Your task to perform on an android device: open app "DoorDash - Dasher" (install if not already installed) Image 0: 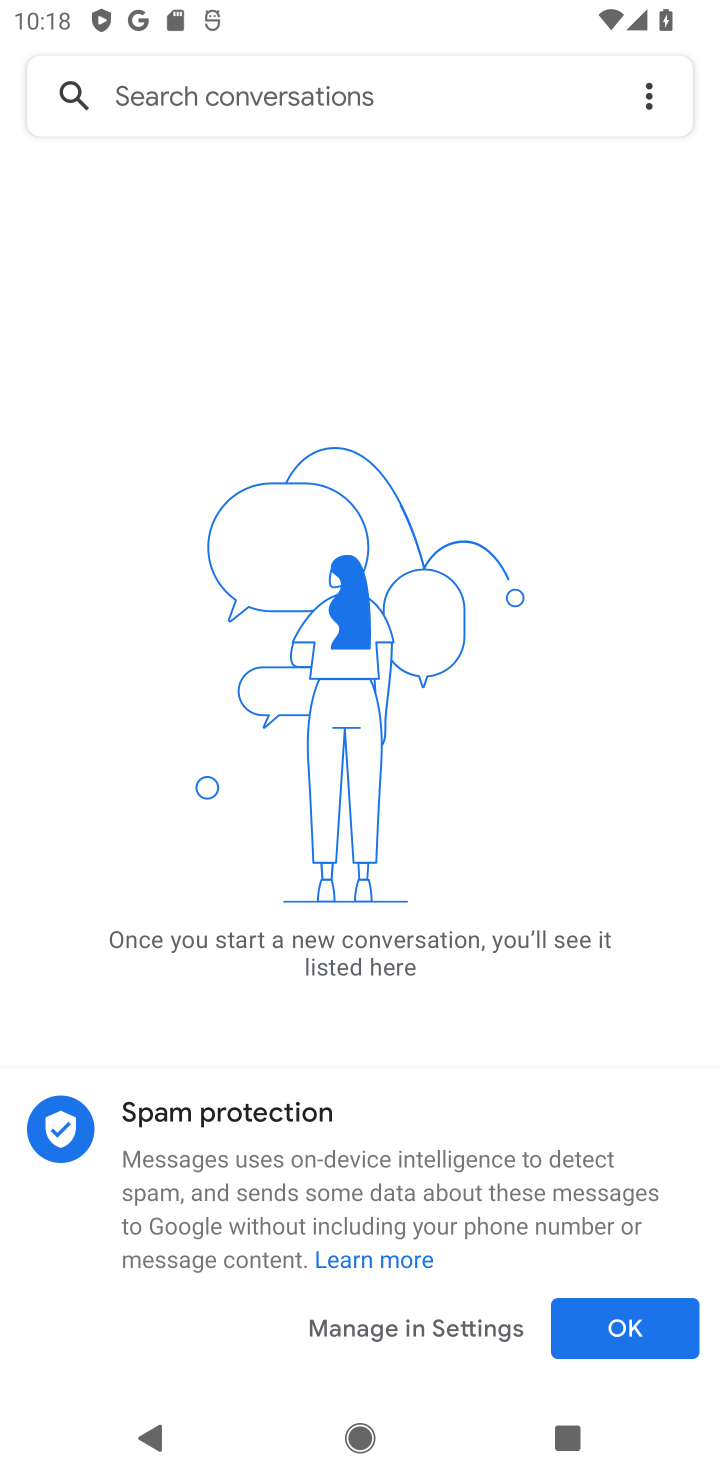
Step 0: press back button
Your task to perform on an android device: open app "DoorDash - Dasher" (install if not already installed) Image 1: 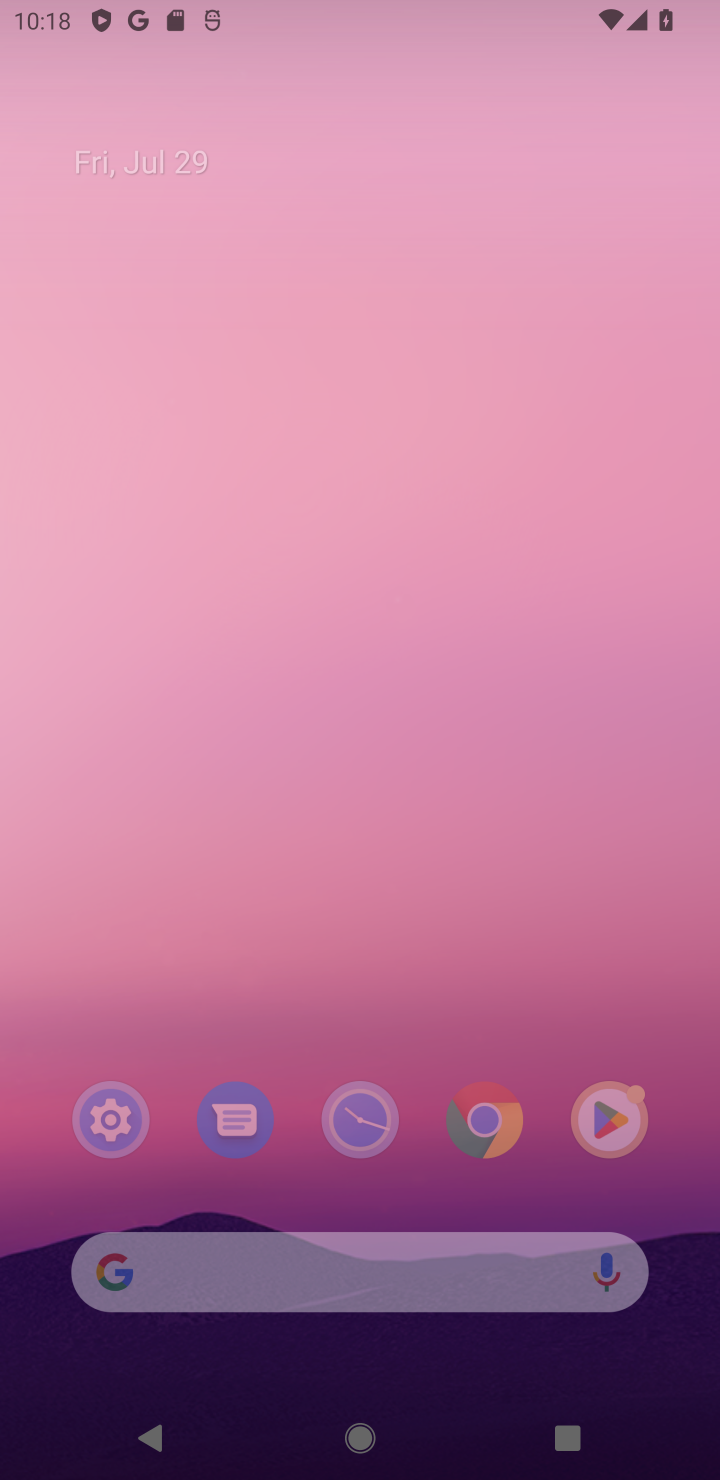
Step 1: press back button
Your task to perform on an android device: open app "DoorDash - Dasher" (install if not already installed) Image 2: 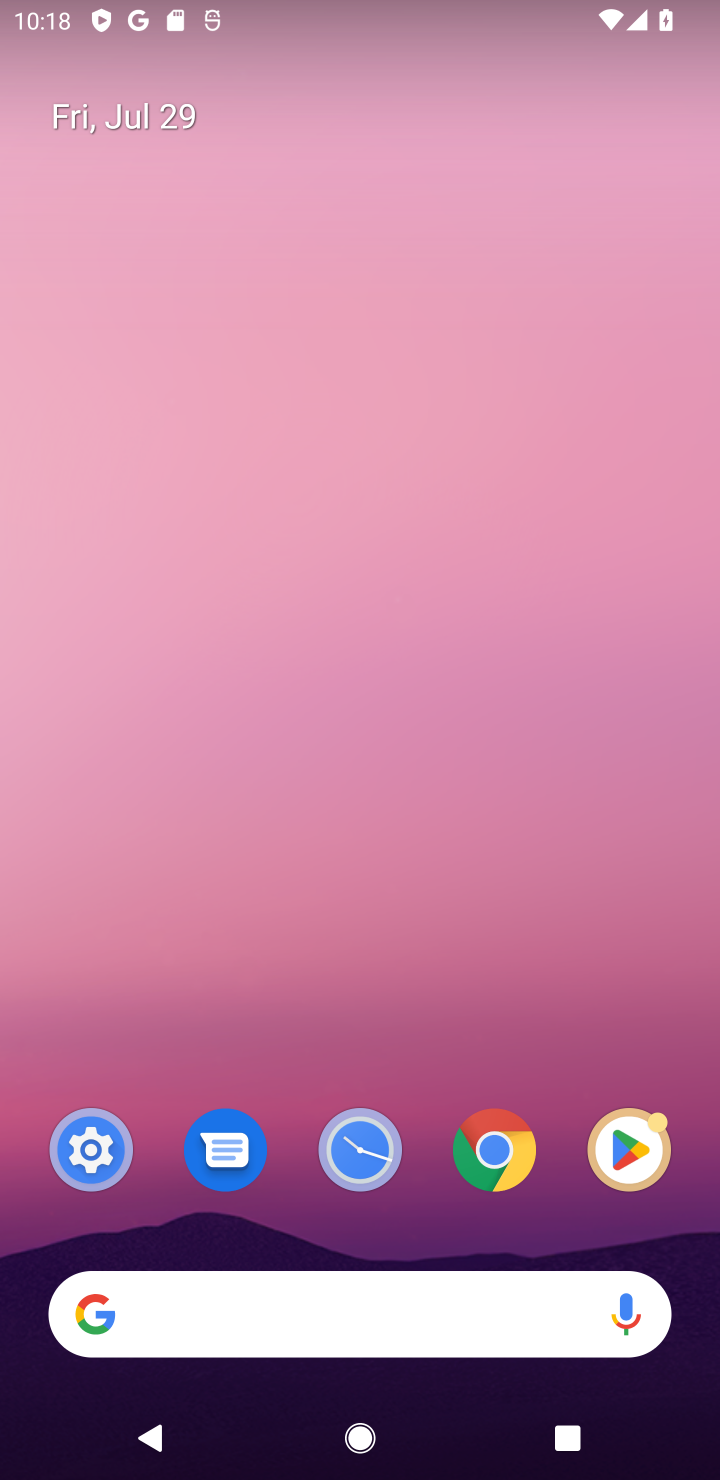
Step 2: click (627, 1153)
Your task to perform on an android device: open app "DoorDash - Dasher" (install if not already installed) Image 3: 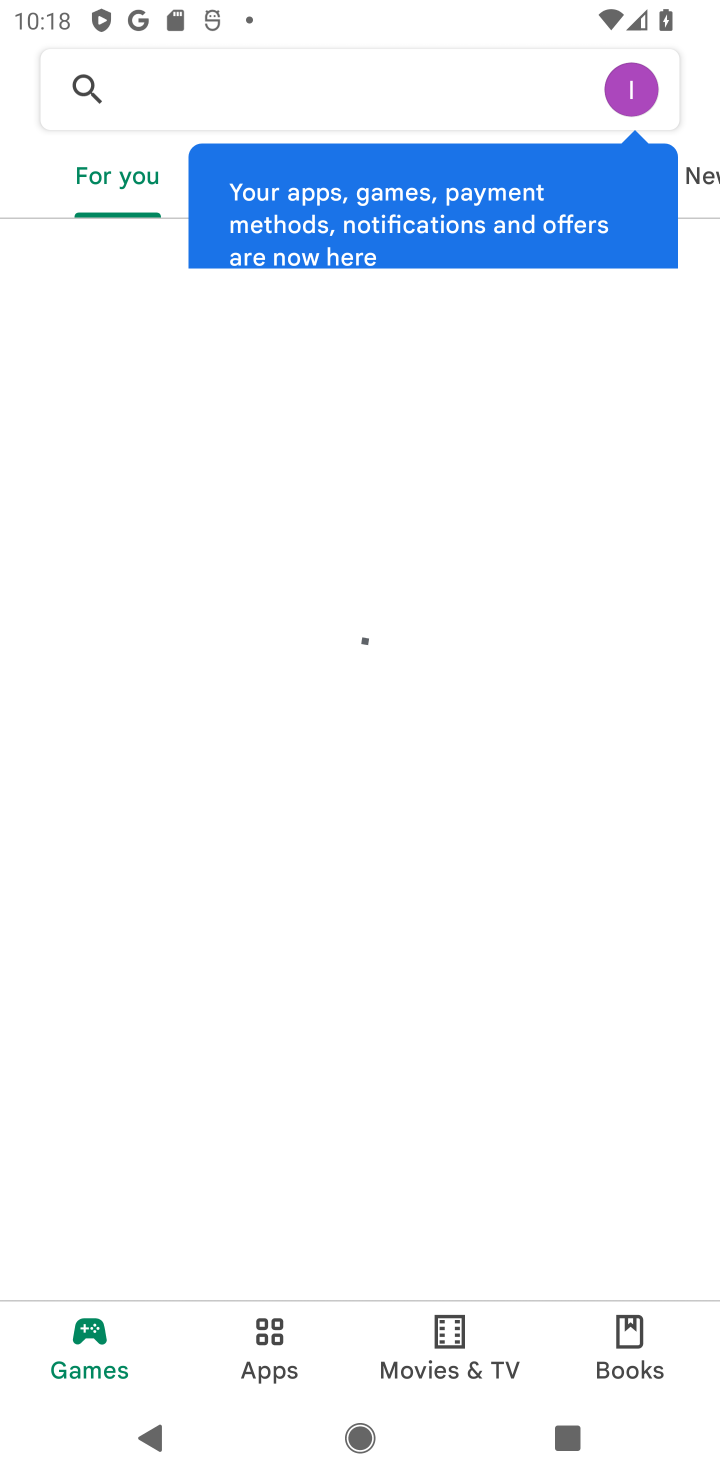
Step 3: click (368, 95)
Your task to perform on an android device: open app "DoorDash - Dasher" (install if not already installed) Image 4: 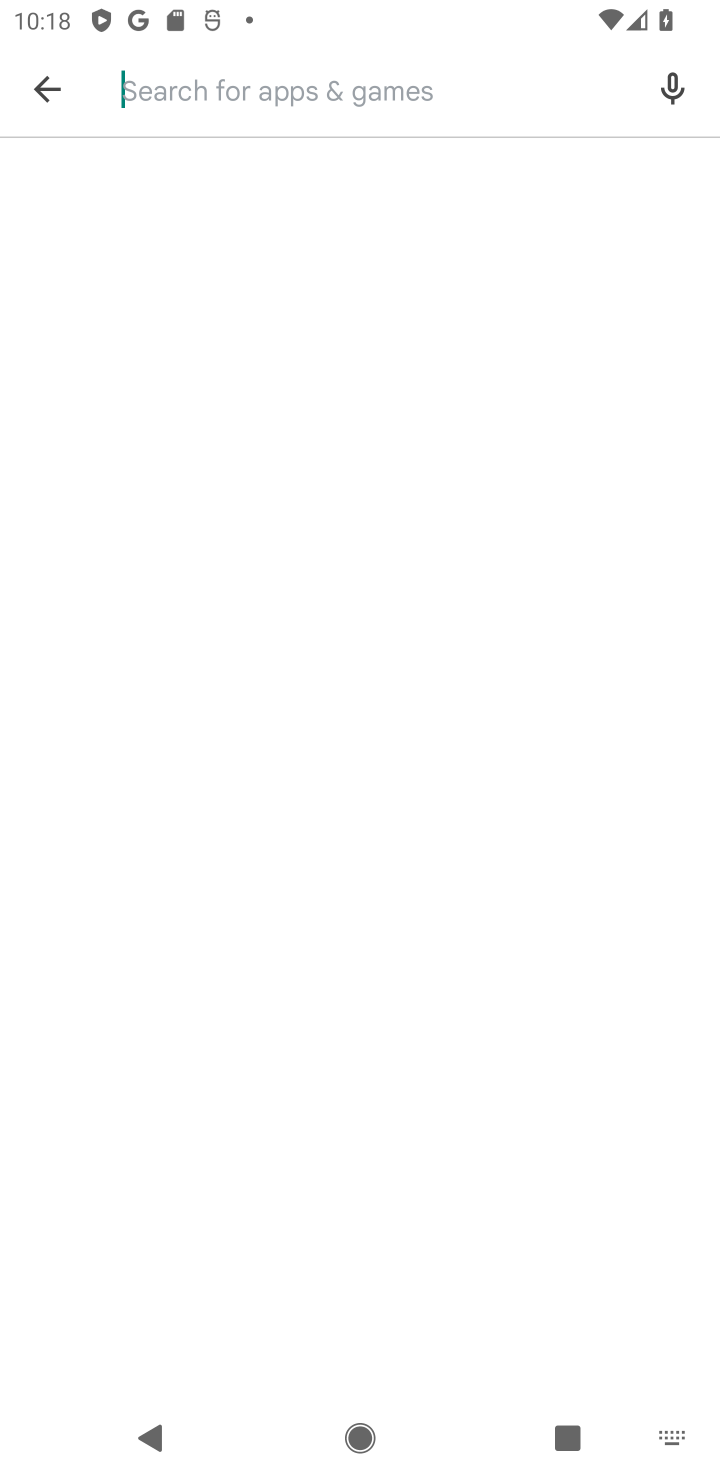
Step 4: click (258, 71)
Your task to perform on an android device: open app "DoorDash - Dasher" (install if not already installed) Image 5: 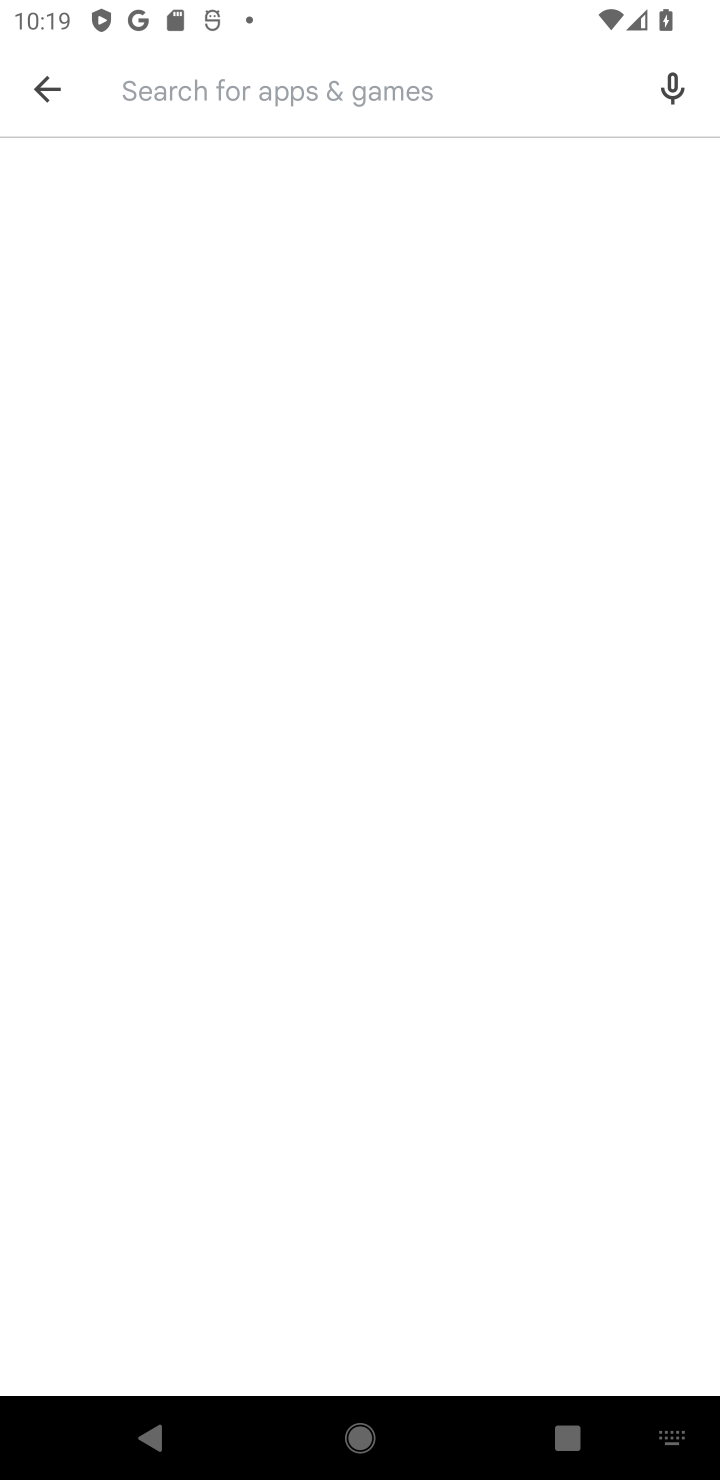
Step 5: type "doordash"
Your task to perform on an android device: open app "DoorDash - Dasher" (install if not already installed) Image 6: 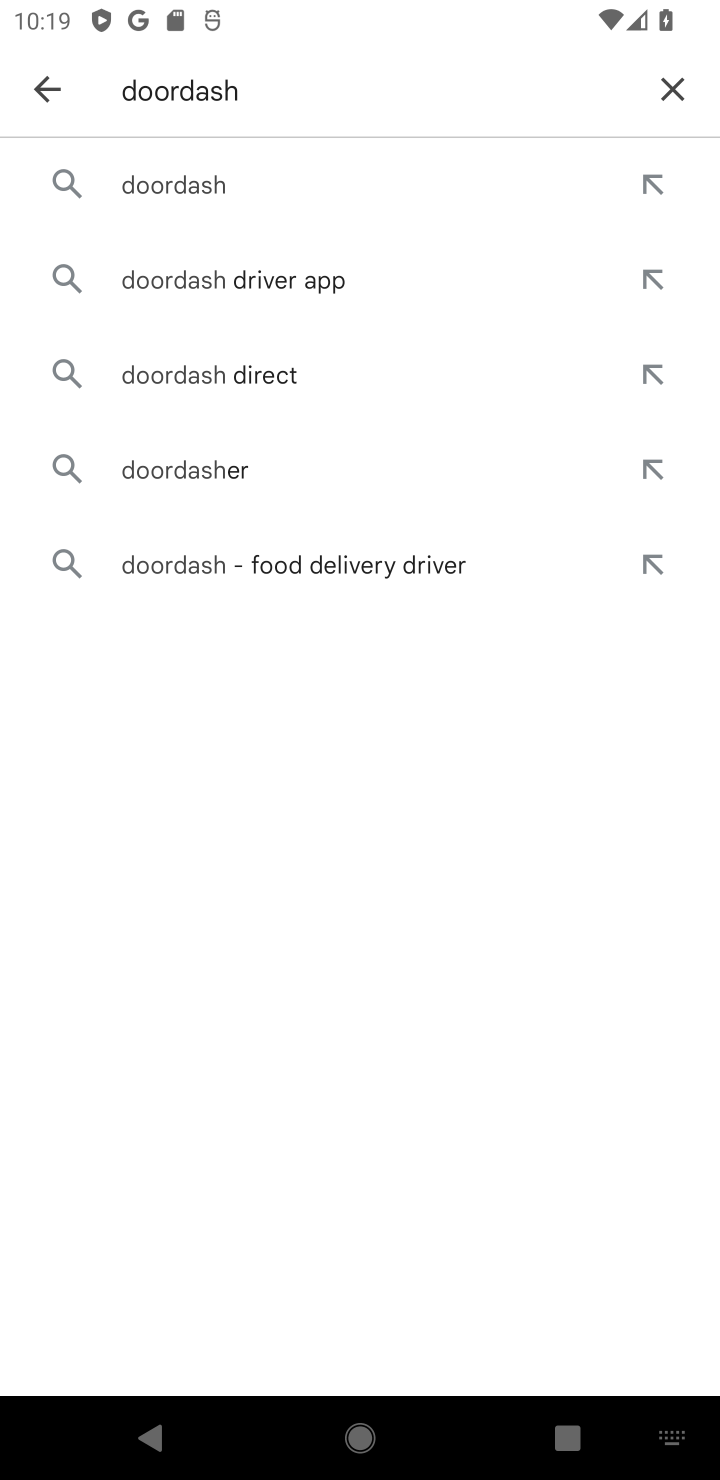
Step 6: click (182, 184)
Your task to perform on an android device: open app "DoorDash - Dasher" (install if not already installed) Image 7: 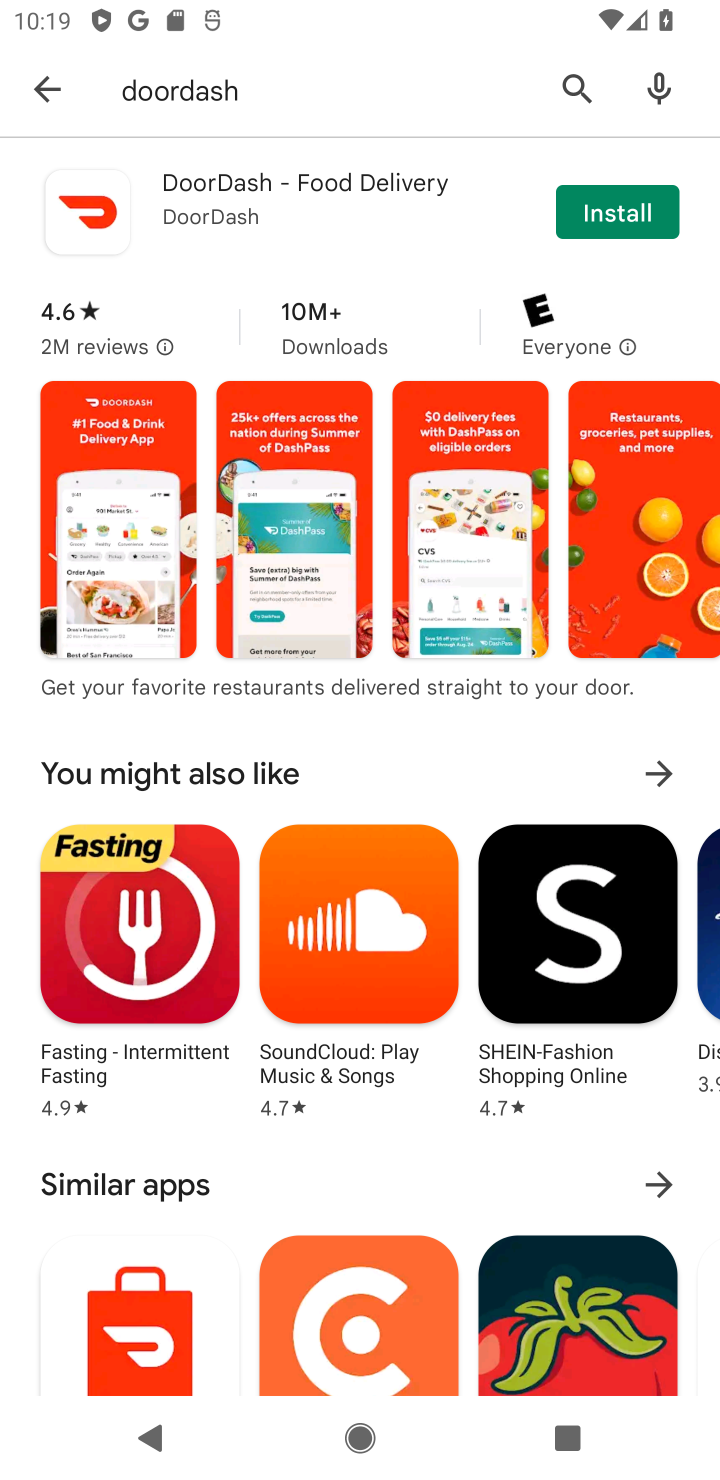
Step 7: drag from (252, 1258) to (435, 723)
Your task to perform on an android device: open app "DoorDash - Dasher" (install if not already installed) Image 8: 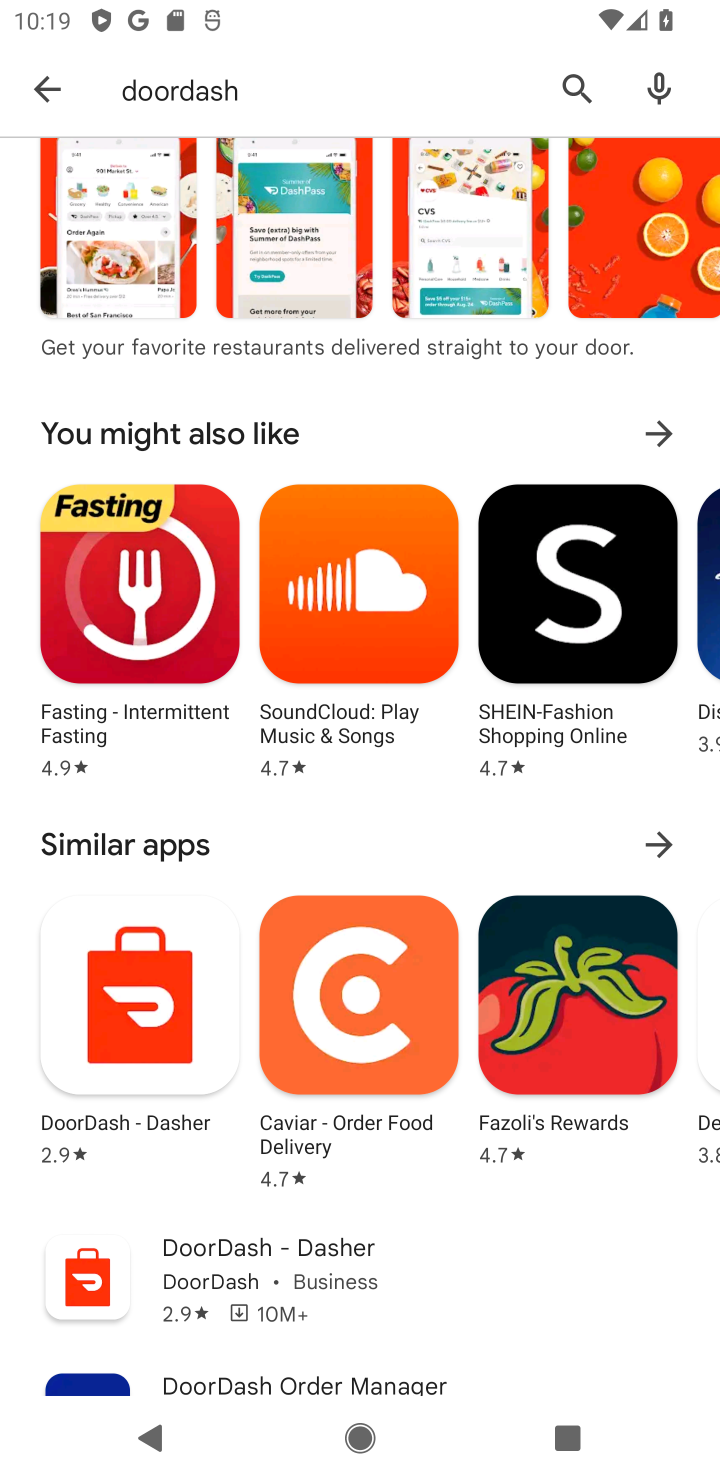
Step 8: click (135, 995)
Your task to perform on an android device: open app "DoorDash - Dasher" (install if not already installed) Image 9: 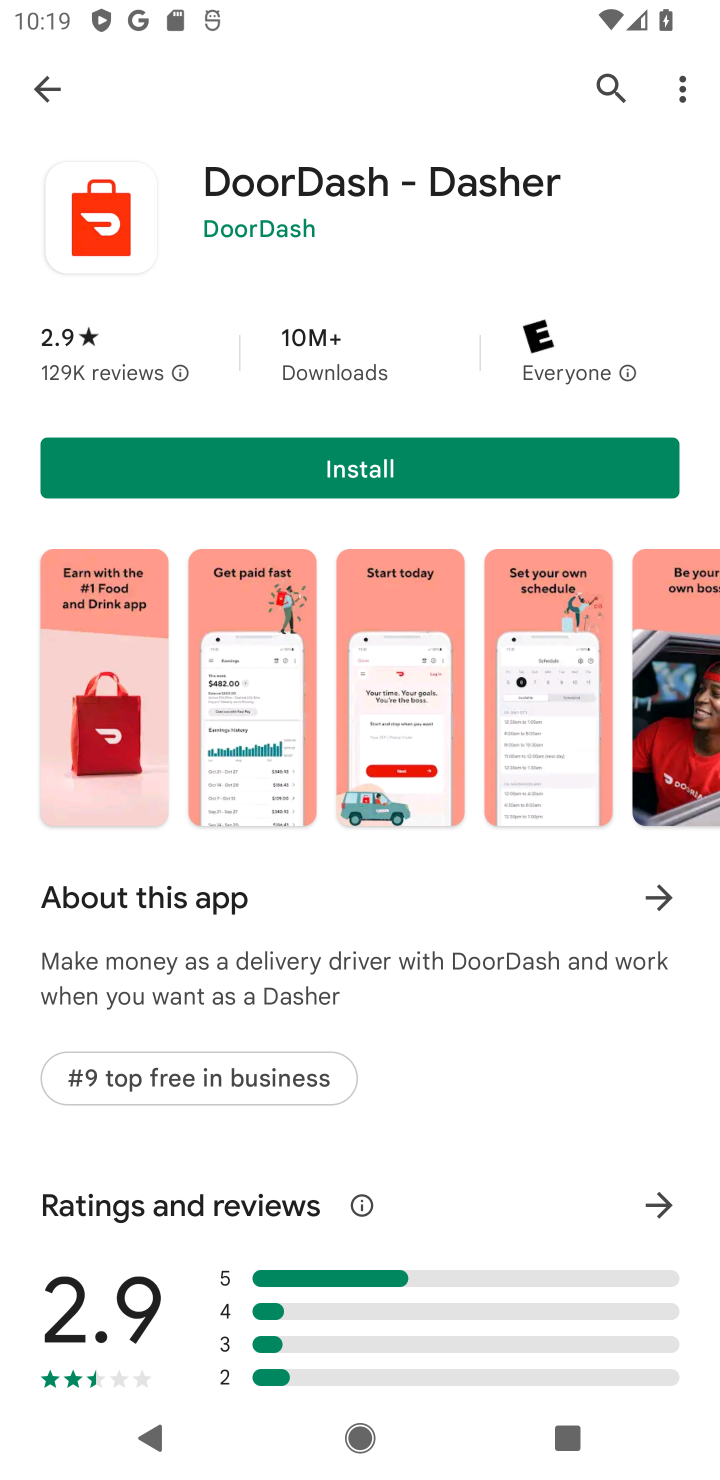
Step 9: click (413, 485)
Your task to perform on an android device: open app "DoorDash - Dasher" (install if not already installed) Image 10: 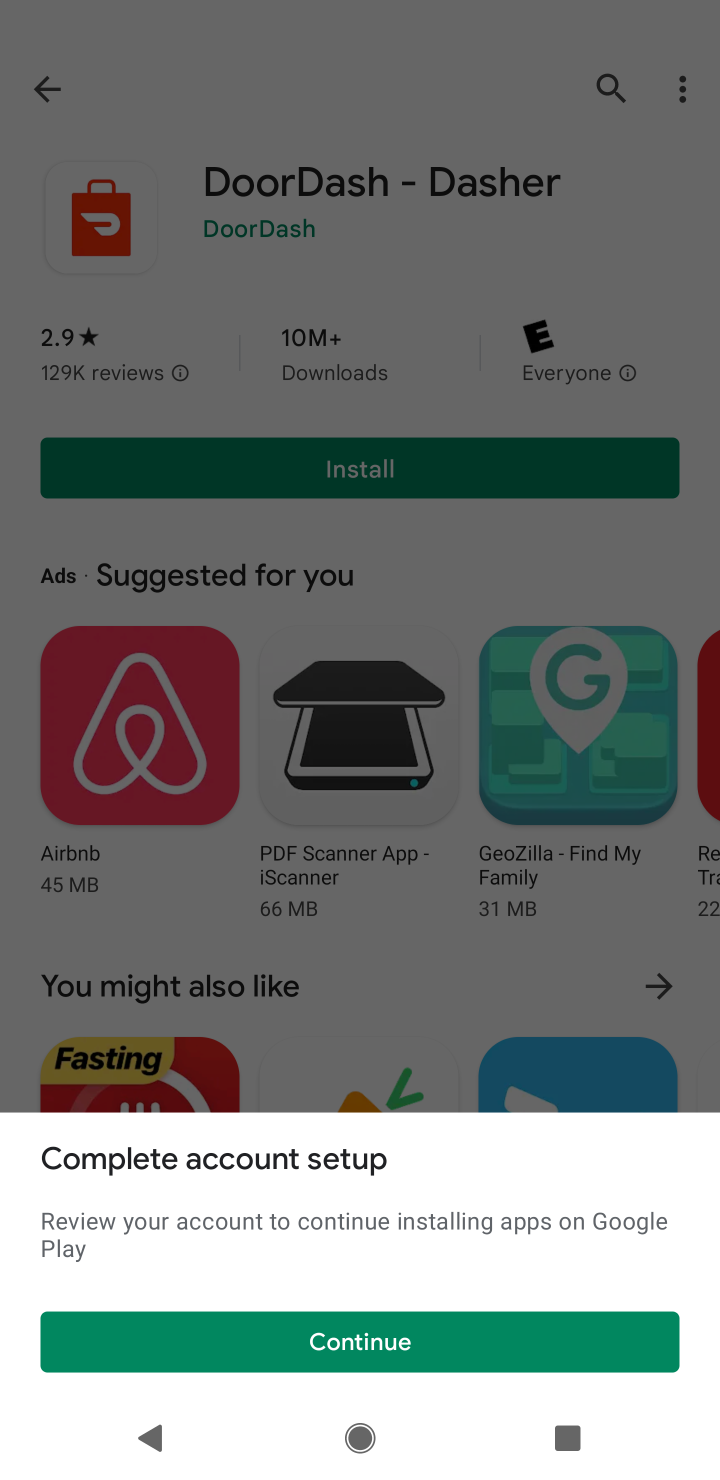
Step 10: click (332, 1341)
Your task to perform on an android device: open app "DoorDash - Dasher" (install if not already installed) Image 11: 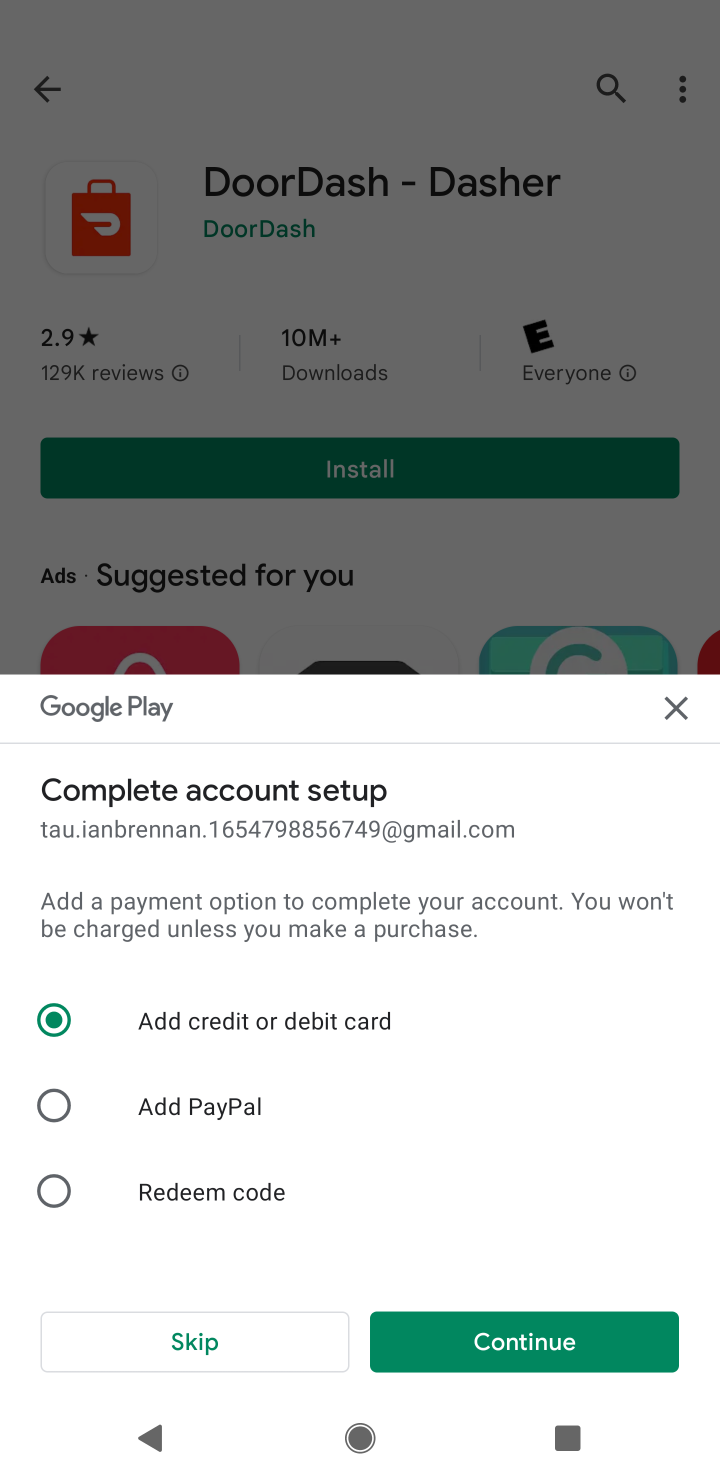
Step 11: click (194, 1341)
Your task to perform on an android device: open app "DoorDash - Dasher" (install if not already installed) Image 12: 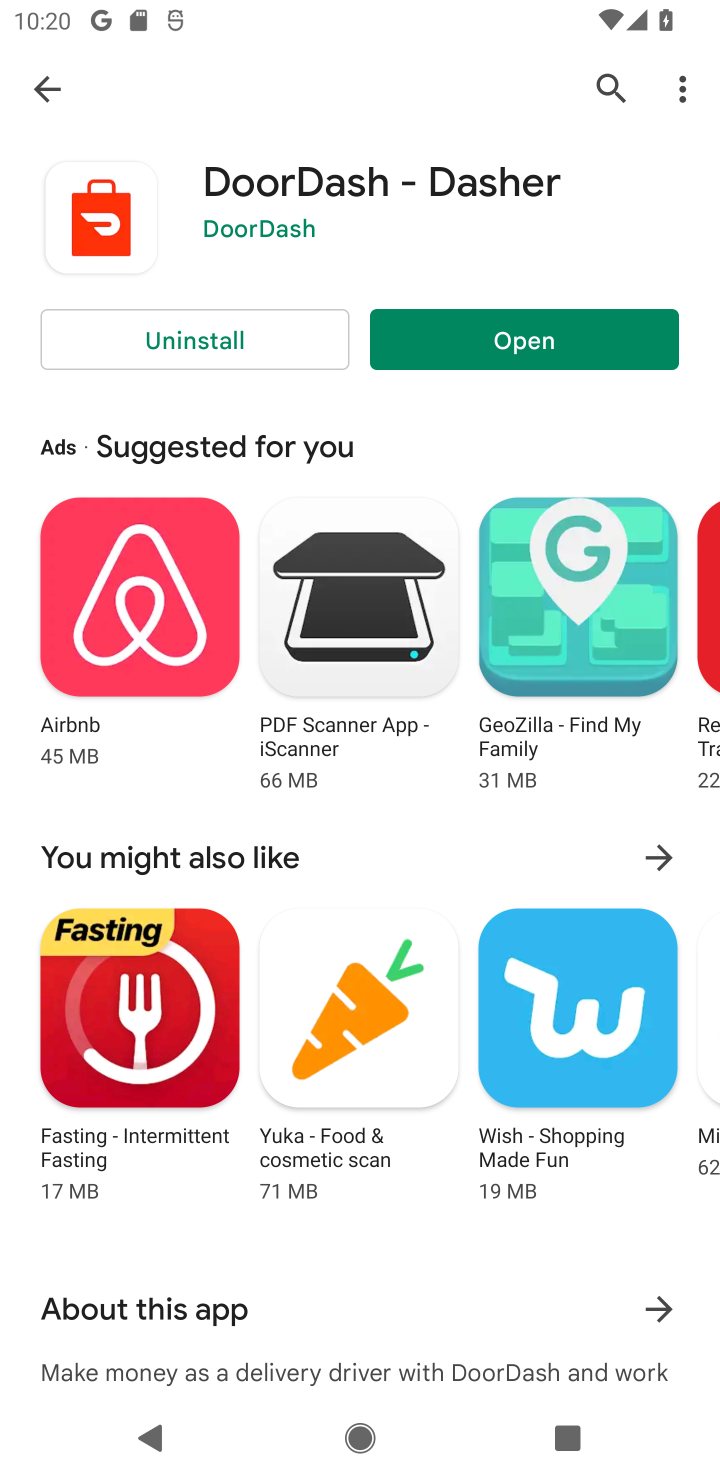
Step 12: click (576, 345)
Your task to perform on an android device: open app "DoorDash - Dasher" (install if not already installed) Image 13: 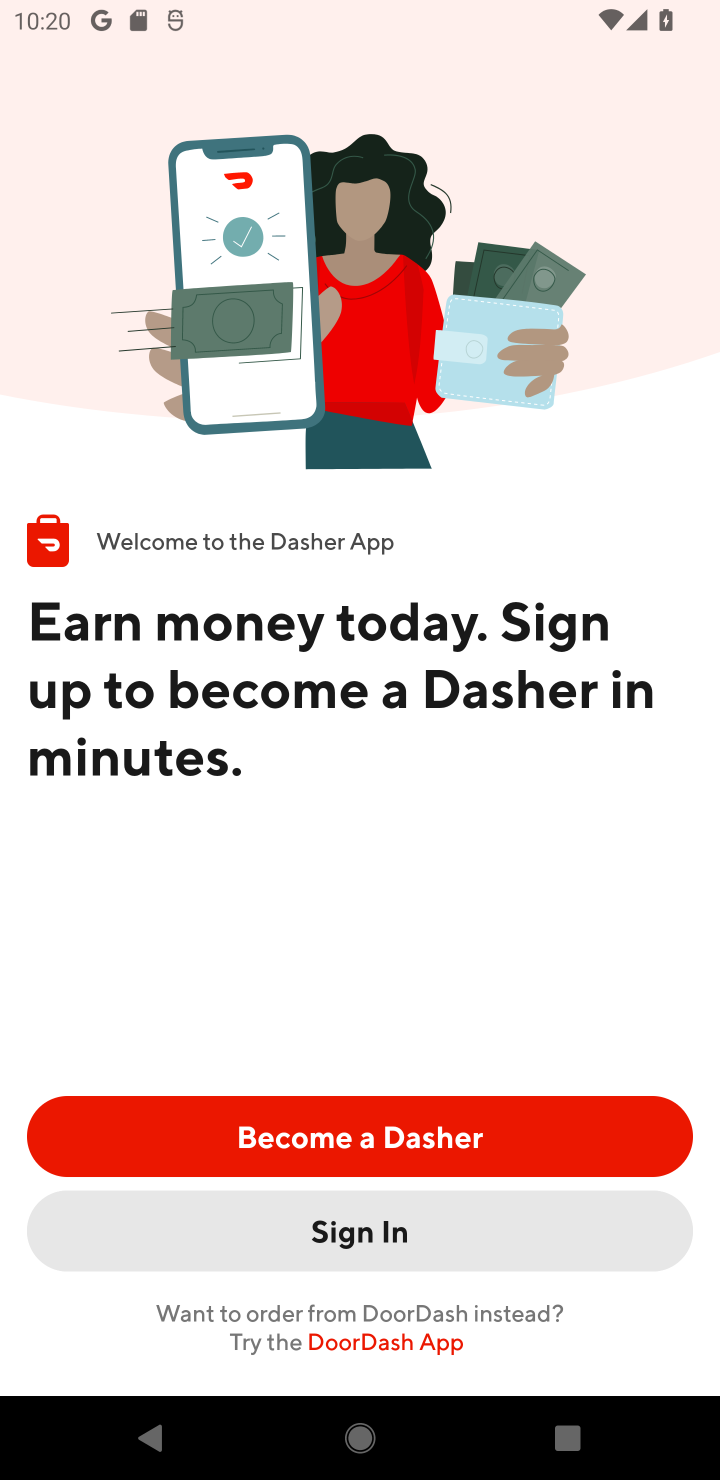
Step 13: task complete